Your task to perform on an android device: toggle wifi Image 0: 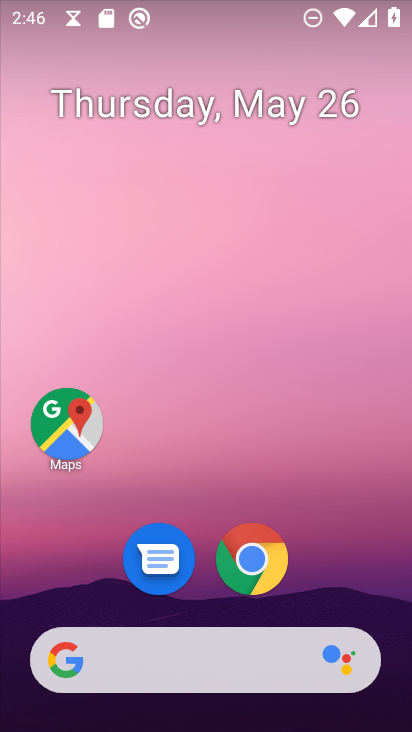
Step 0: drag from (189, 652) to (341, 147)
Your task to perform on an android device: toggle wifi Image 1: 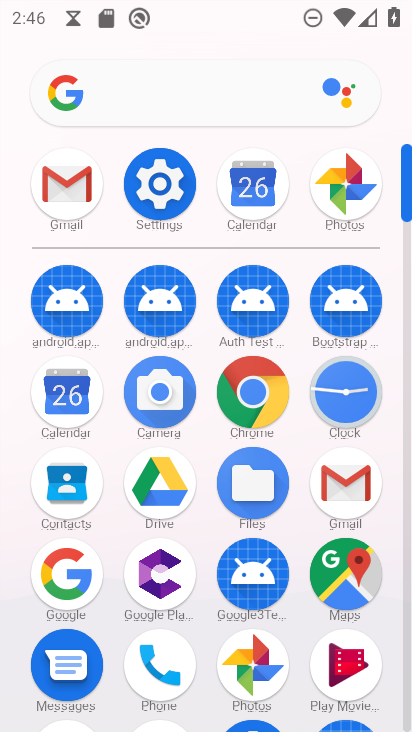
Step 1: click (168, 189)
Your task to perform on an android device: toggle wifi Image 2: 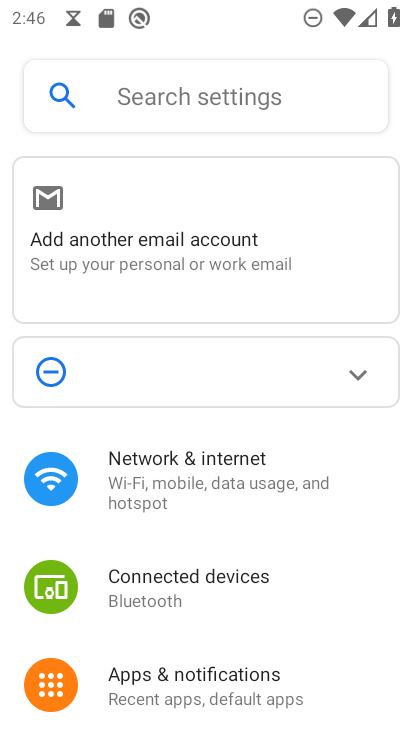
Step 2: click (234, 465)
Your task to perform on an android device: toggle wifi Image 3: 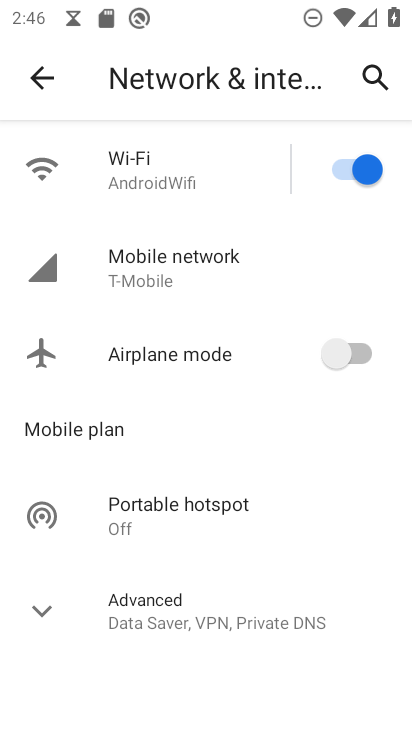
Step 3: click (340, 170)
Your task to perform on an android device: toggle wifi Image 4: 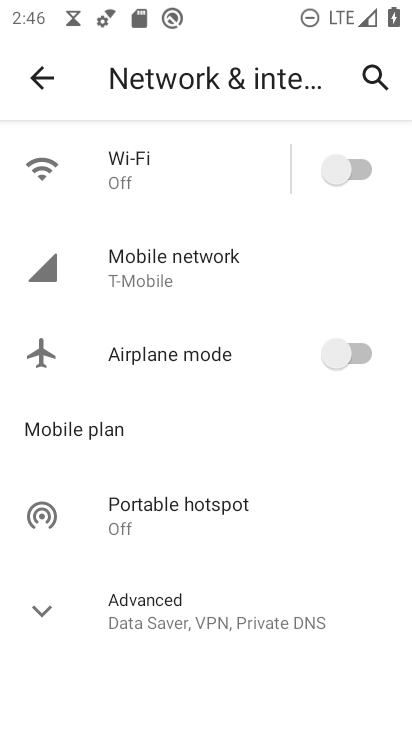
Step 4: task complete